Your task to perform on an android device: open chrome privacy settings Image 0: 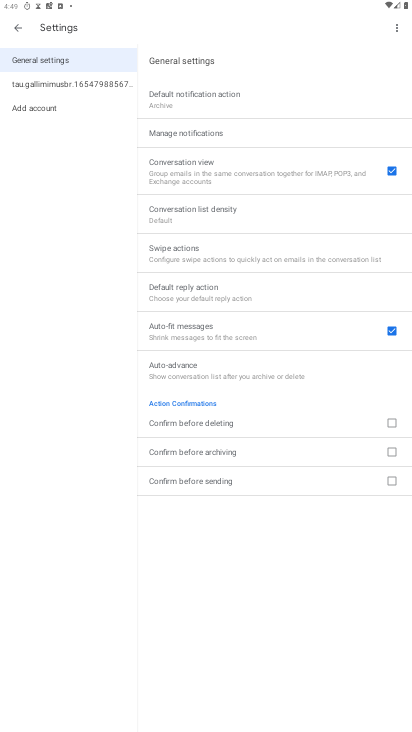
Step 0: press back button
Your task to perform on an android device: open chrome privacy settings Image 1: 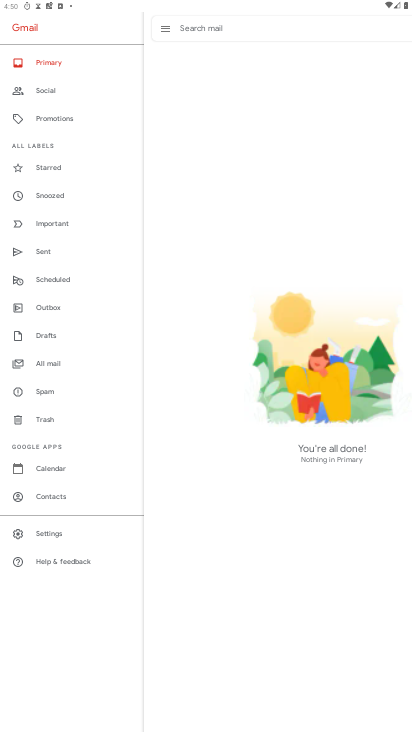
Step 1: press home button
Your task to perform on an android device: open chrome privacy settings Image 2: 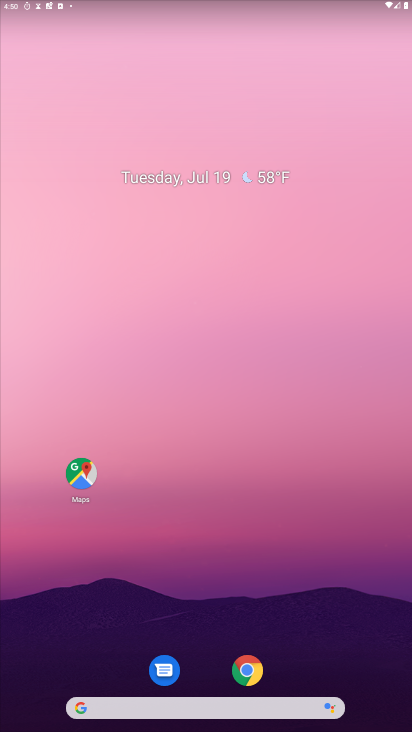
Step 2: drag from (110, 627) to (312, 9)
Your task to perform on an android device: open chrome privacy settings Image 3: 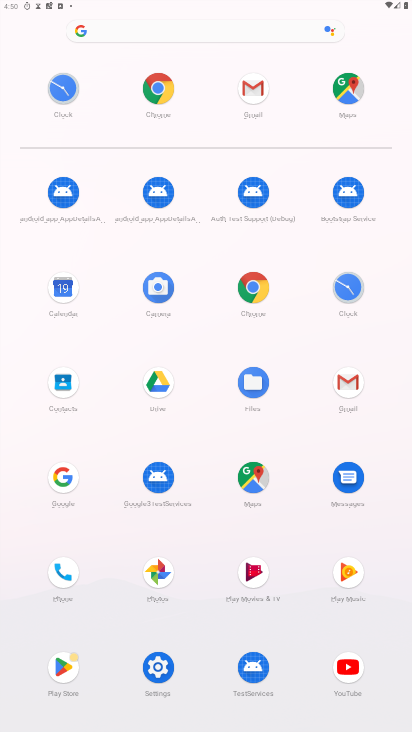
Step 3: click (248, 289)
Your task to perform on an android device: open chrome privacy settings Image 4: 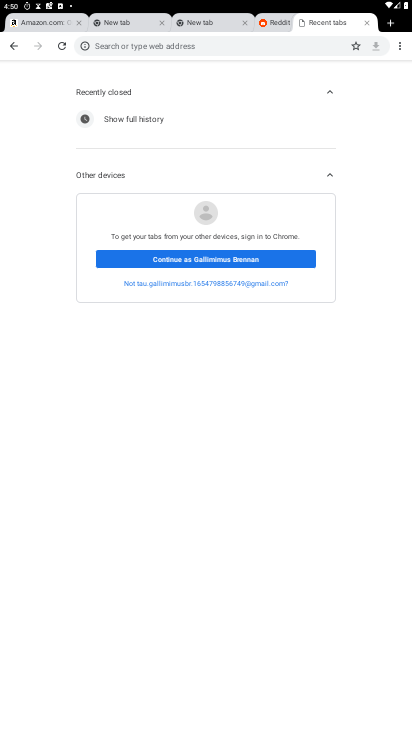
Step 4: drag from (397, 46) to (340, 204)
Your task to perform on an android device: open chrome privacy settings Image 5: 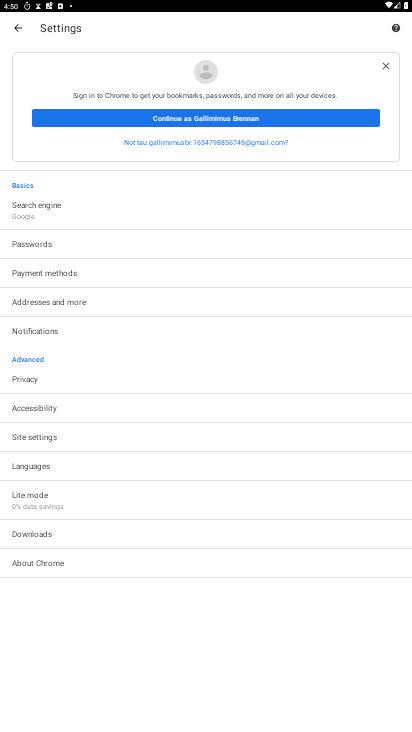
Step 5: click (43, 380)
Your task to perform on an android device: open chrome privacy settings Image 6: 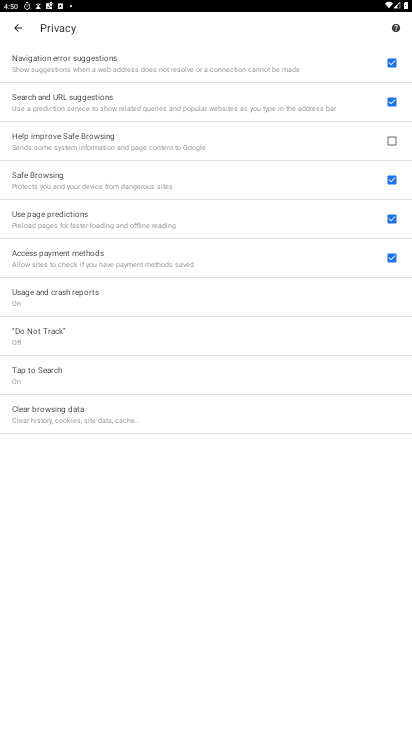
Step 6: task complete